Your task to perform on an android device: Open accessibility settings Image 0: 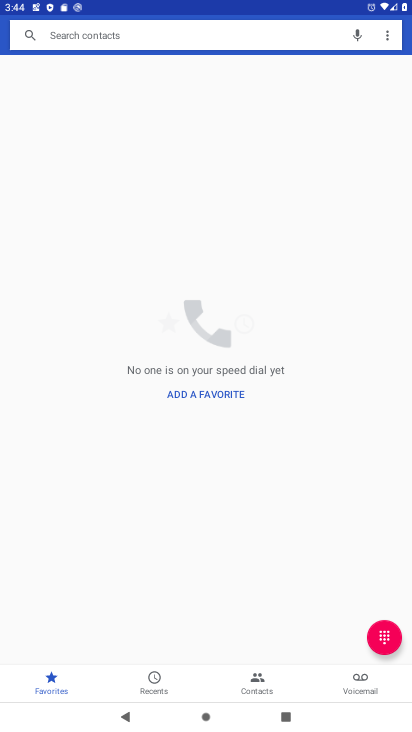
Step 0: press home button
Your task to perform on an android device: Open accessibility settings Image 1: 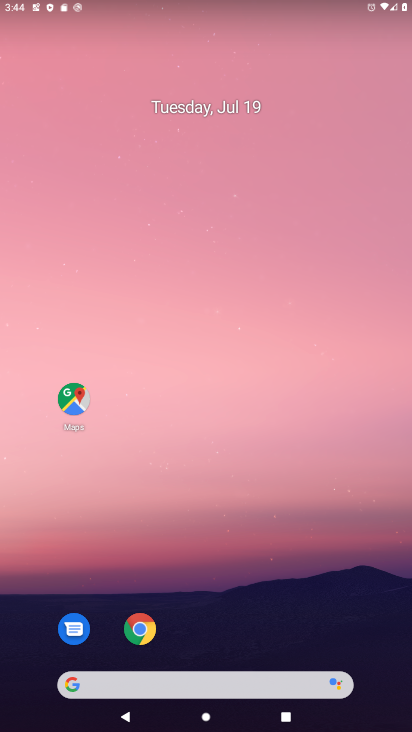
Step 1: drag from (189, 589) to (150, 274)
Your task to perform on an android device: Open accessibility settings Image 2: 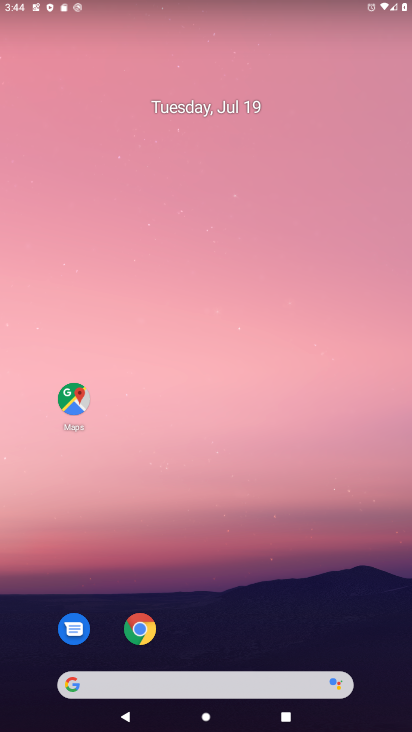
Step 2: drag from (219, 678) to (205, 111)
Your task to perform on an android device: Open accessibility settings Image 3: 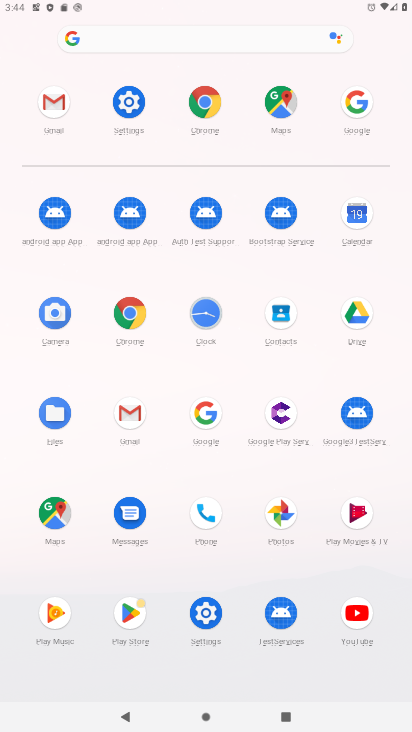
Step 3: click (131, 104)
Your task to perform on an android device: Open accessibility settings Image 4: 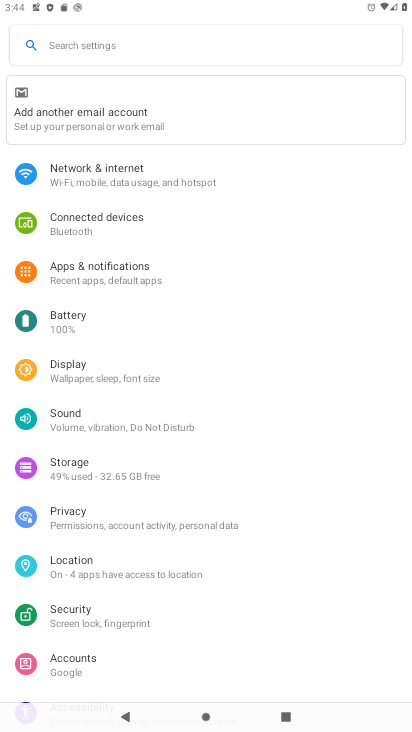
Step 4: drag from (118, 679) to (94, 224)
Your task to perform on an android device: Open accessibility settings Image 5: 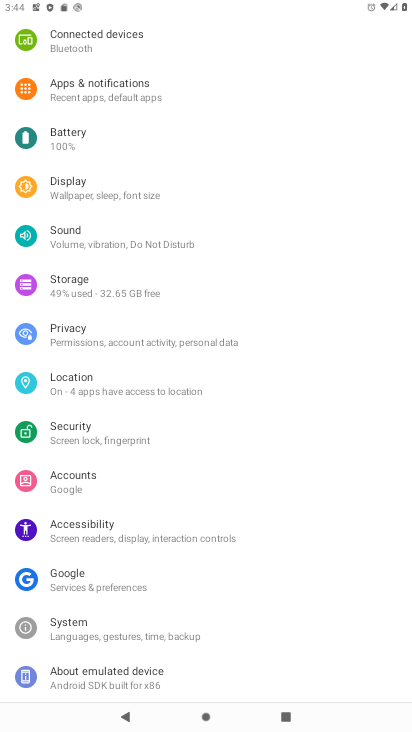
Step 5: click (69, 540)
Your task to perform on an android device: Open accessibility settings Image 6: 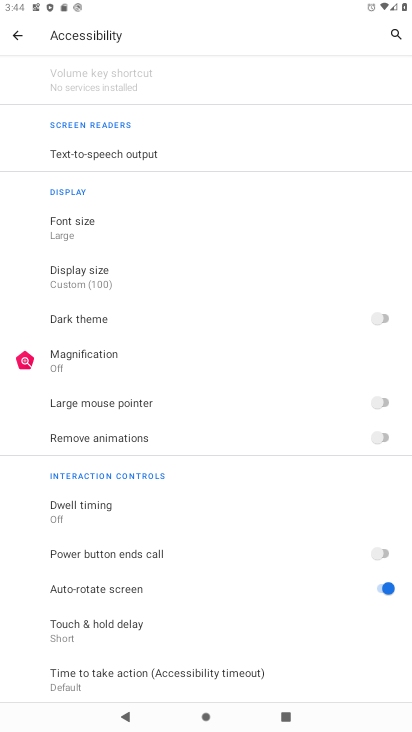
Step 6: task complete